Your task to perform on an android device: open chrome privacy settings Image 0: 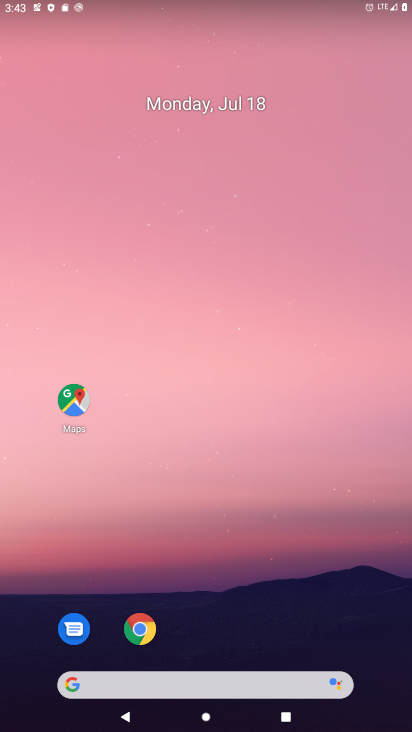
Step 0: click (135, 636)
Your task to perform on an android device: open chrome privacy settings Image 1: 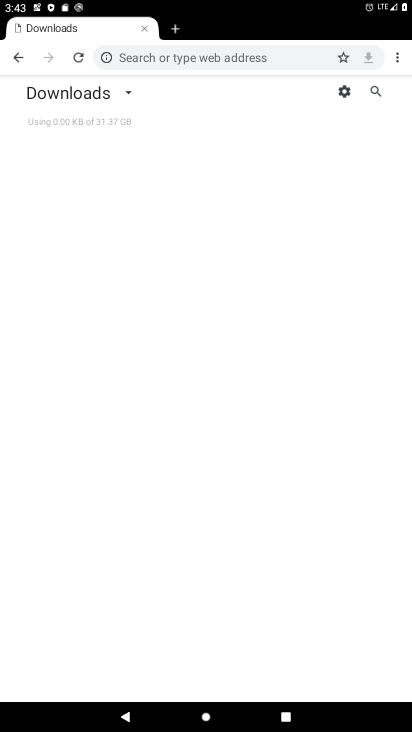
Step 1: click (391, 54)
Your task to perform on an android device: open chrome privacy settings Image 2: 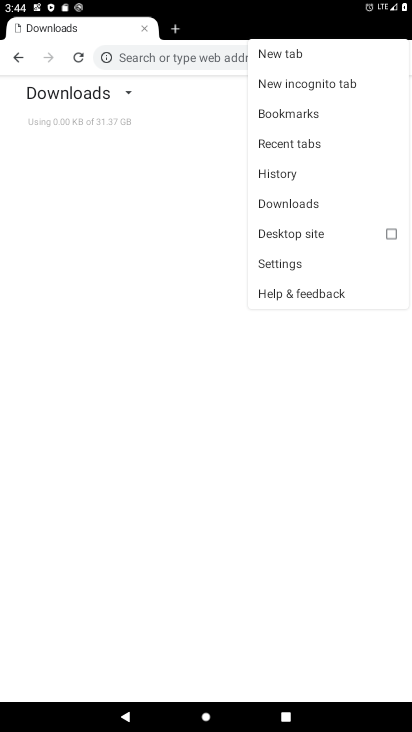
Step 2: click (261, 263)
Your task to perform on an android device: open chrome privacy settings Image 3: 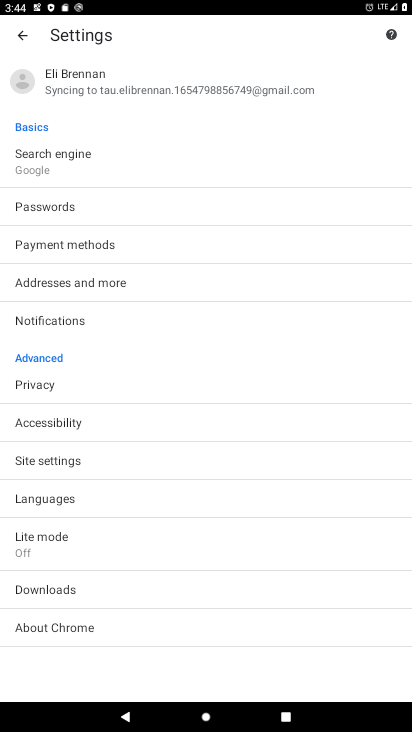
Step 3: click (54, 373)
Your task to perform on an android device: open chrome privacy settings Image 4: 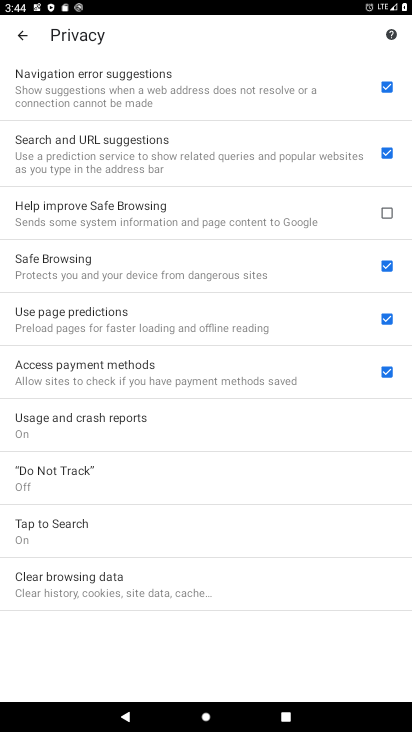
Step 4: task complete